Your task to perform on an android device: Open the calendar app, open the side menu, and click the "Day" option Image 0: 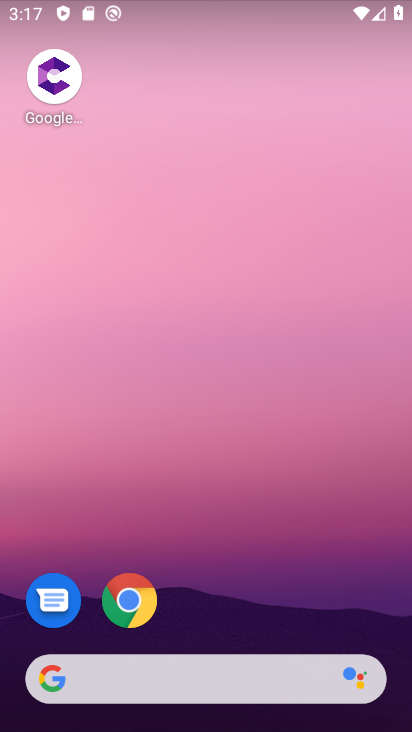
Step 0: click (132, 605)
Your task to perform on an android device: Open the calendar app, open the side menu, and click the "Day" option Image 1: 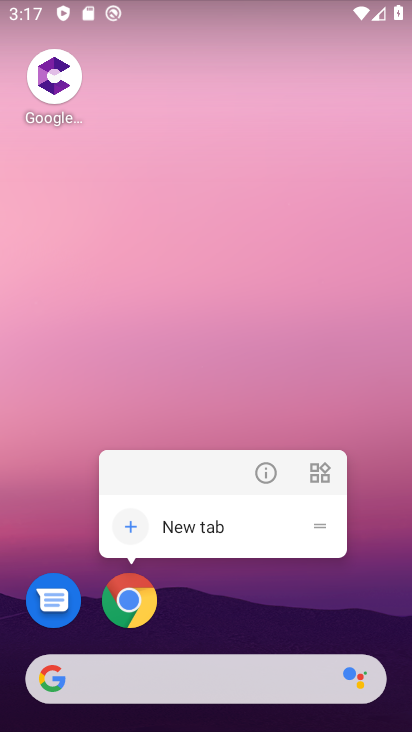
Step 1: click (132, 605)
Your task to perform on an android device: Open the calendar app, open the side menu, and click the "Day" option Image 2: 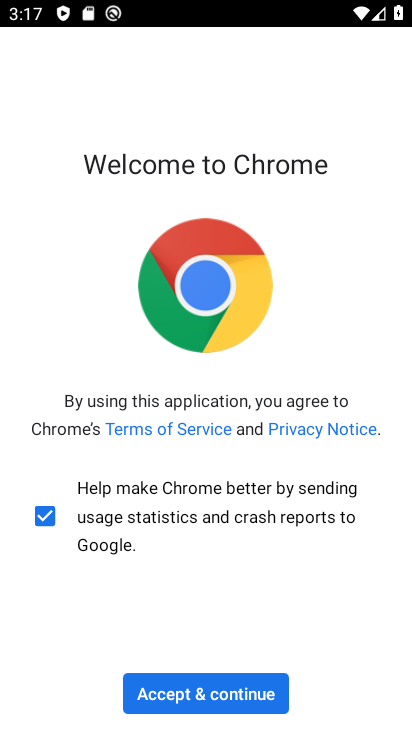
Step 2: press home button
Your task to perform on an android device: Open the calendar app, open the side menu, and click the "Day" option Image 3: 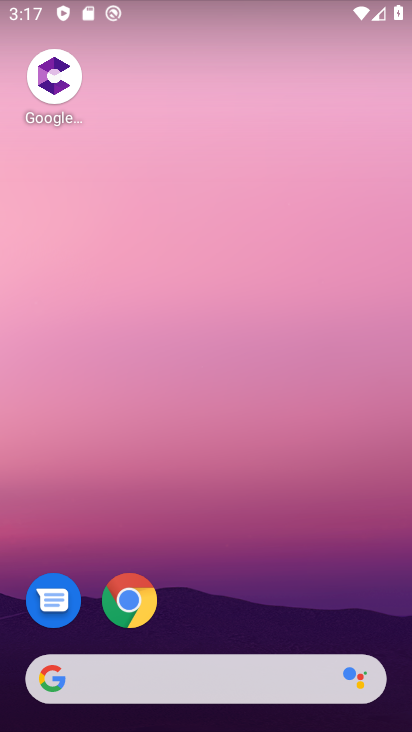
Step 3: drag from (195, 603) to (326, 6)
Your task to perform on an android device: Open the calendar app, open the side menu, and click the "Day" option Image 4: 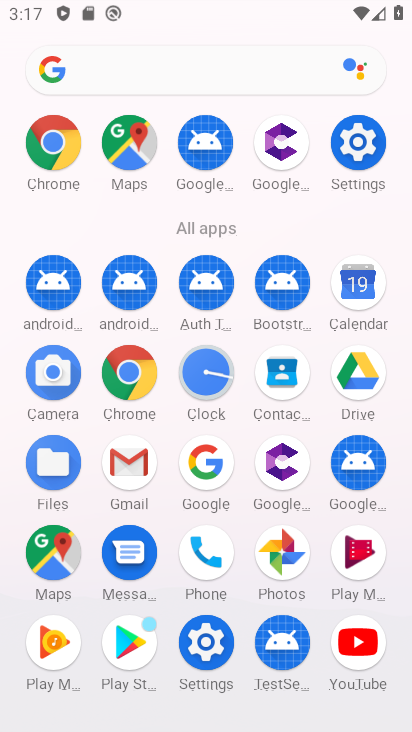
Step 4: click (350, 313)
Your task to perform on an android device: Open the calendar app, open the side menu, and click the "Day" option Image 5: 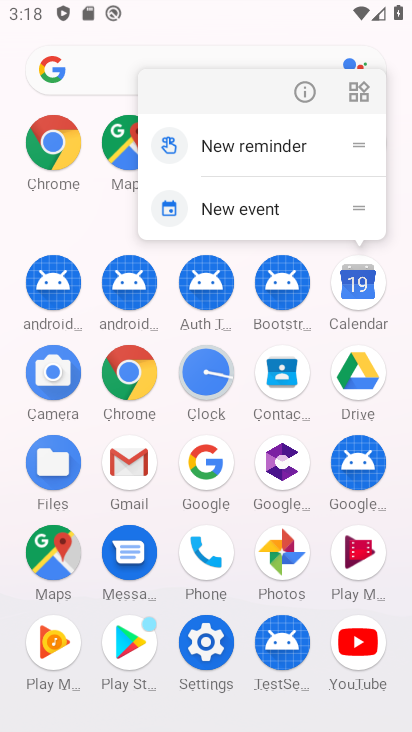
Step 5: click (359, 307)
Your task to perform on an android device: Open the calendar app, open the side menu, and click the "Day" option Image 6: 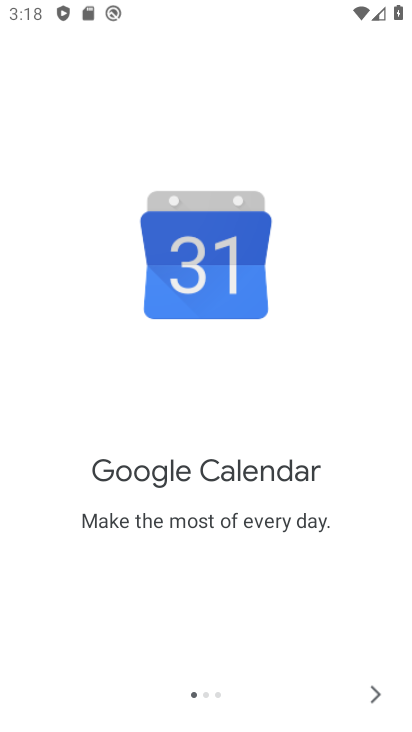
Step 6: click (381, 699)
Your task to perform on an android device: Open the calendar app, open the side menu, and click the "Day" option Image 7: 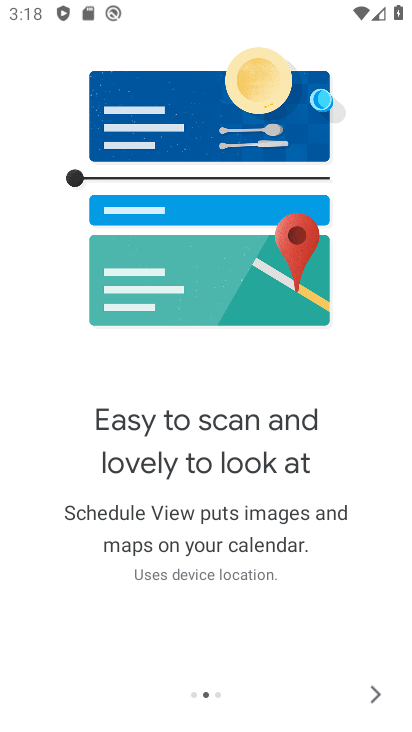
Step 7: click (372, 685)
Your task to perform on an android device: Open the calendar app, open the side menu, and click the "Day" option Image 8: 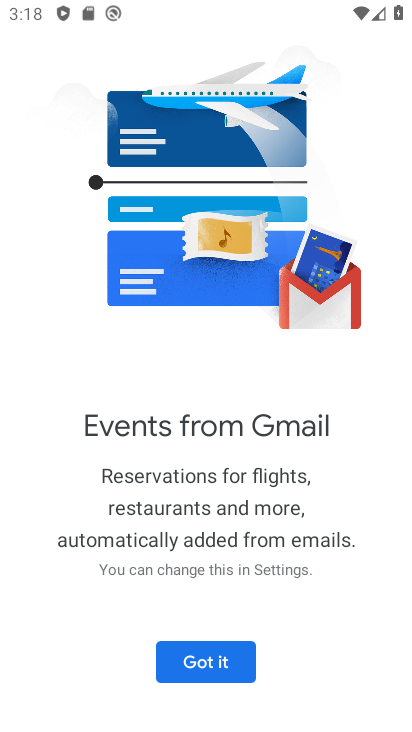
Step 8: click (205, 668)
Your task to perform on an android device: Open the calendar app, open the side menu, and click the "Day" option Image 9: 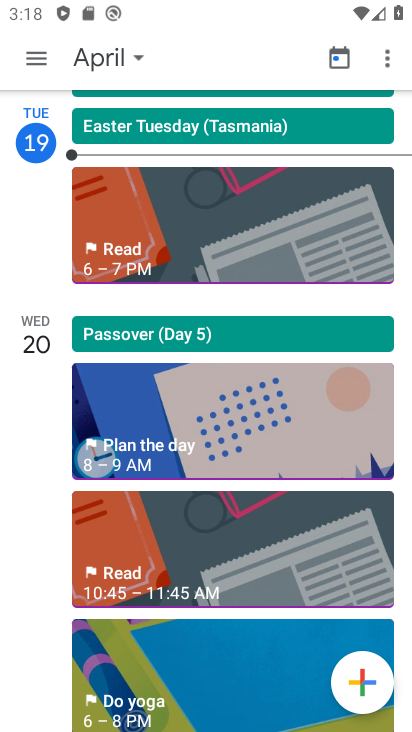
Step 9: click (35, 53)
Your task to perform on an android device: Open the calendar app, open the side menu, and click the "Day" option Image 10: 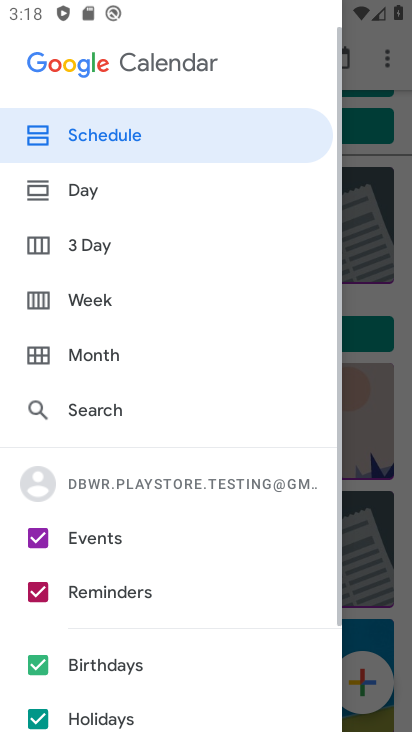
Step 10: click (66, 192)
Your task to perform on an android device: Open the calendar app, open the side menu, and click the "Day" option Image 11: 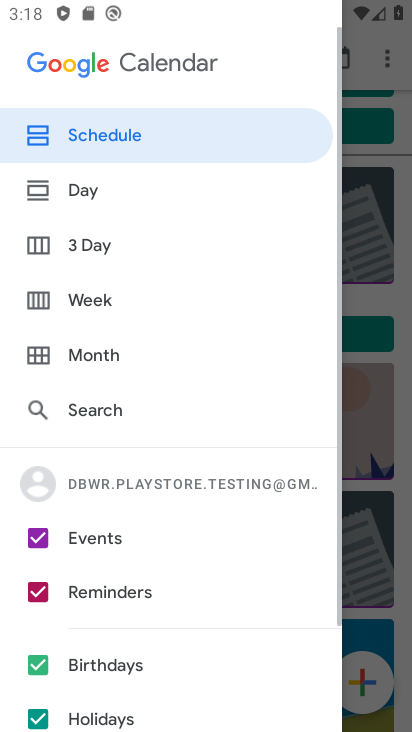
Step 11: click (91, 197)
Your task to perform on an android device: Open the calendar app, open the side menu, and click the "Day" option Image 12: 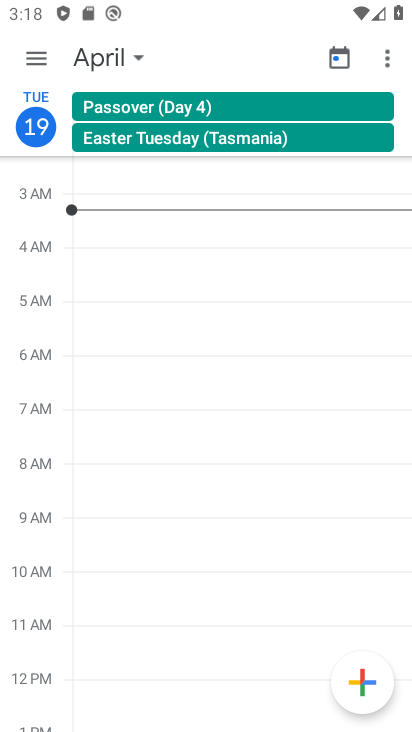
Step 12: task complete